Your task to perform on an android device: Go to eBay Image 0: 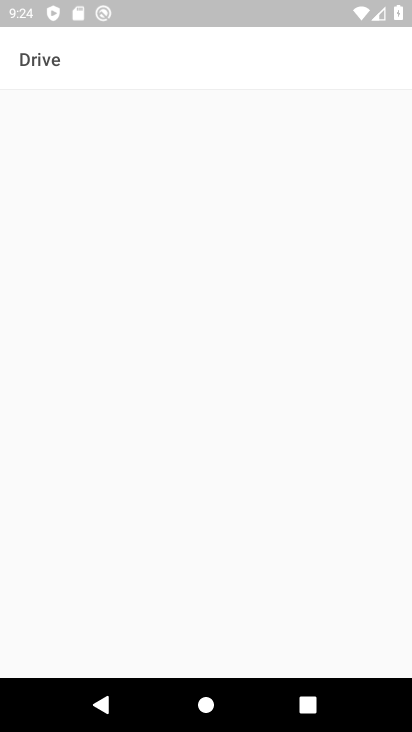
Step 0: press back button
Your task to perform on an android device: Go to eBay Image 1: 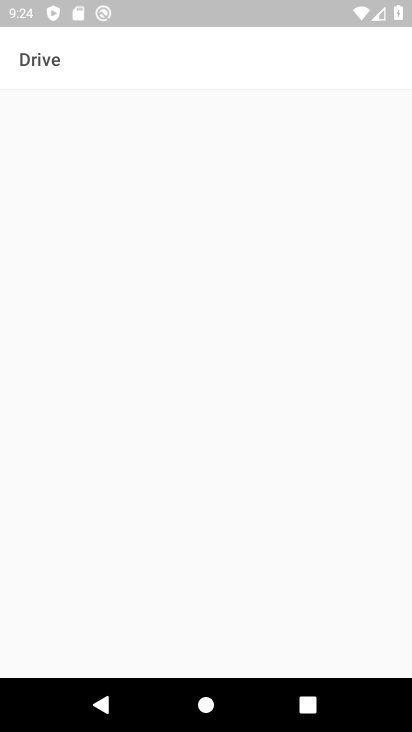
Step 1: press home button
Your task to perform on an android device: Go to eBay Image 2: 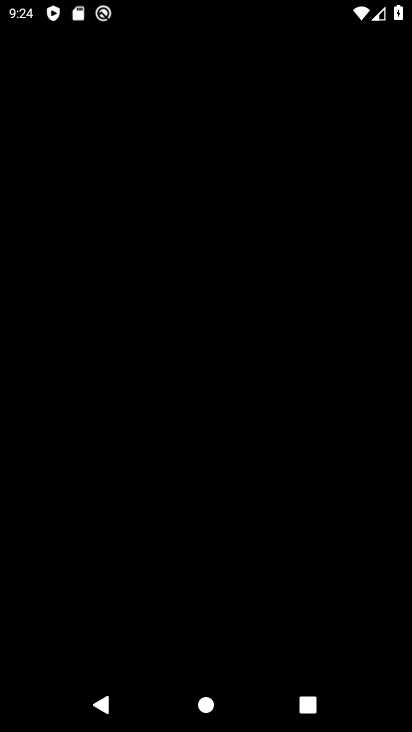
Step 2: press home button
Your task to perform on an android device: Go to eBay Image 3: 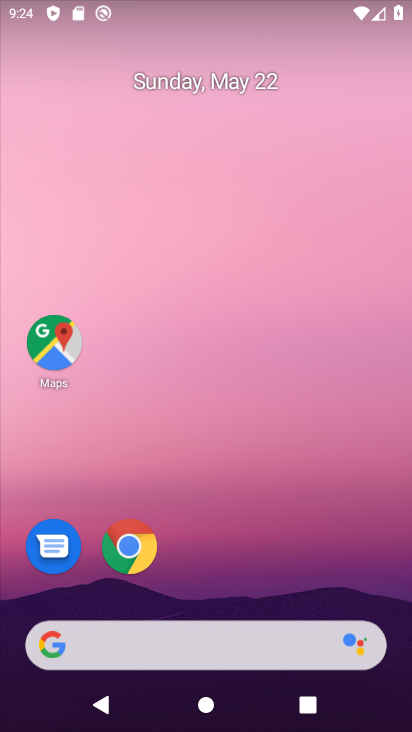
Step 3: drag from (267, 546) to (179, 146)
Your task to perform on an android device: Go to eBay Image 4: 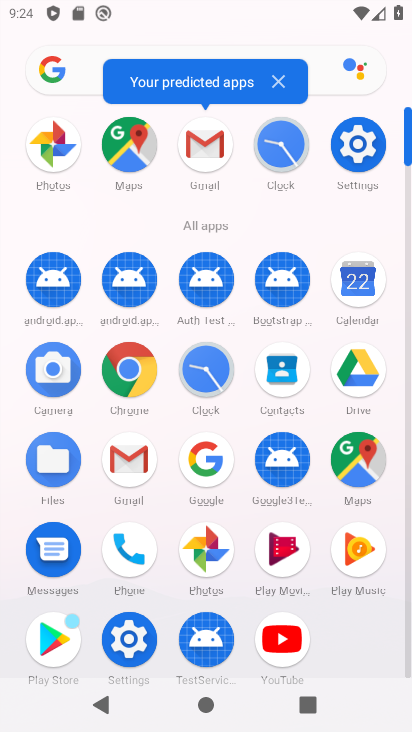
Step 4: click (203, 459)
Your task to perform on an android device: Go to eBay Image 5: 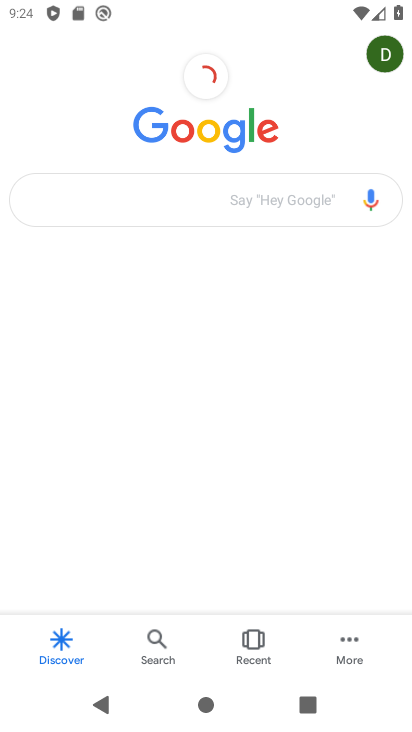
Step 5: click (149, 201)
Your task to perform on an android device: Go to eBay Image 6: 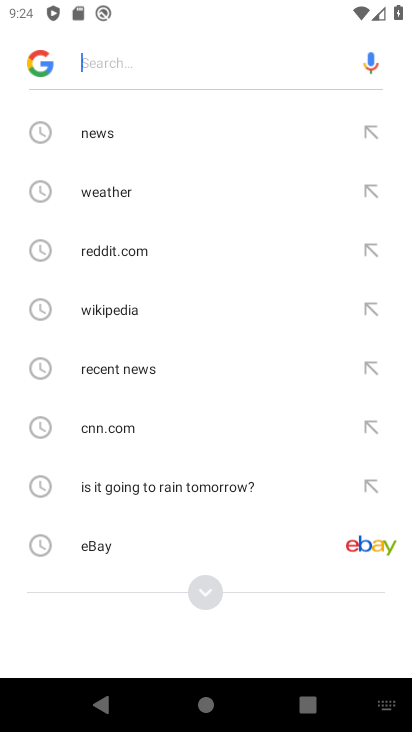
Step 6: type "eBay"
Your task to perform on an android device: Go to eBay Image 7: 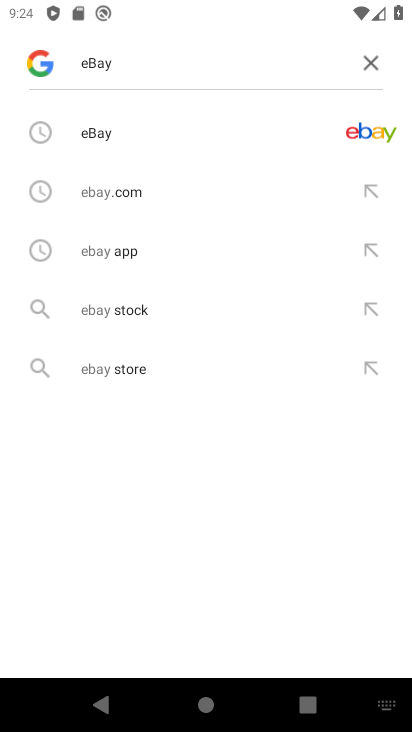
Step 7: click (97, 133)
Your task to perform on an android device: Go to eBay Image 8: 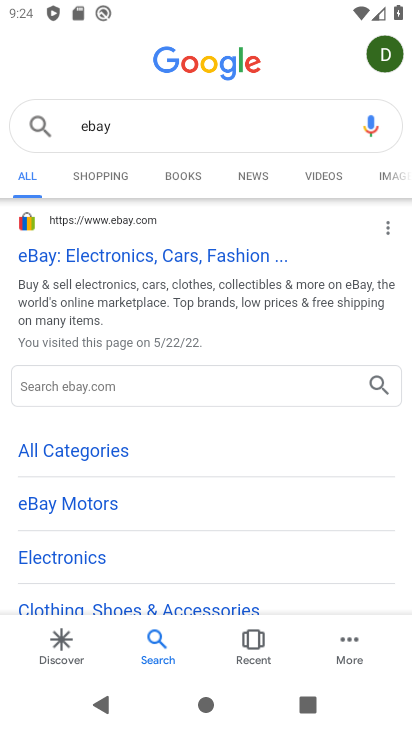
Step 8: click (176, 253)
Your task to perform on an android device: Go to eBay Image 9: 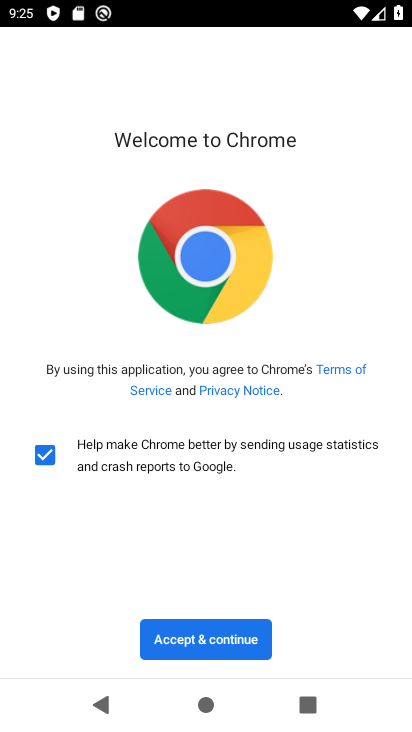
Step 9: click (217, 637)
Your task to perform on an android device: Go to eBay Image 10: 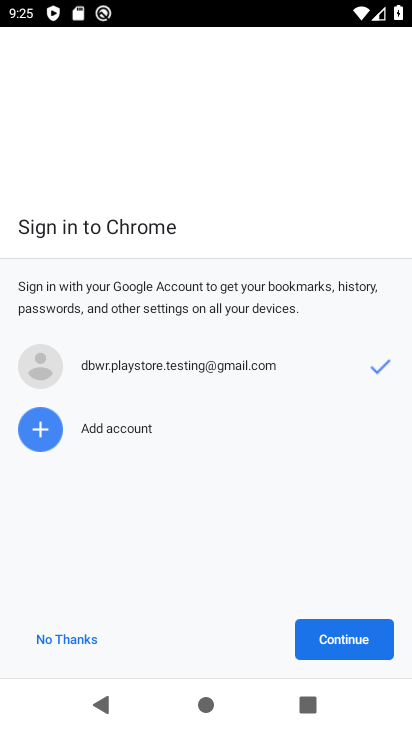
Step 10: click (354, 641)
Your task to perform on an android device: Go to eBay Image 11: 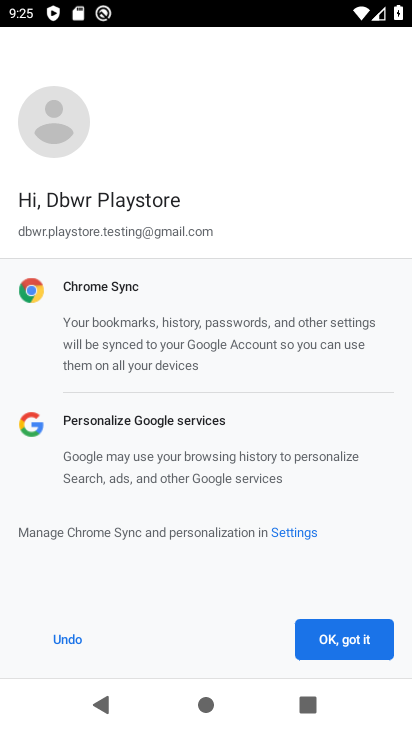
Step 11: click (354, 641)
Your task to perform on an android device: Go to eBay Image 12: 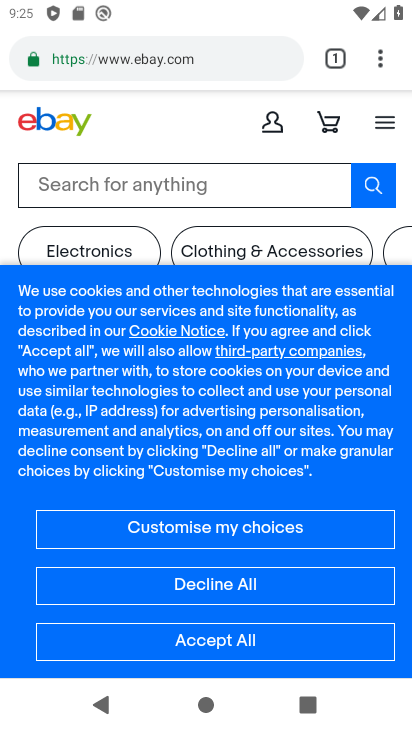
Step 12: task complete